Your task to perform on an android device: Open location settings Image 0: 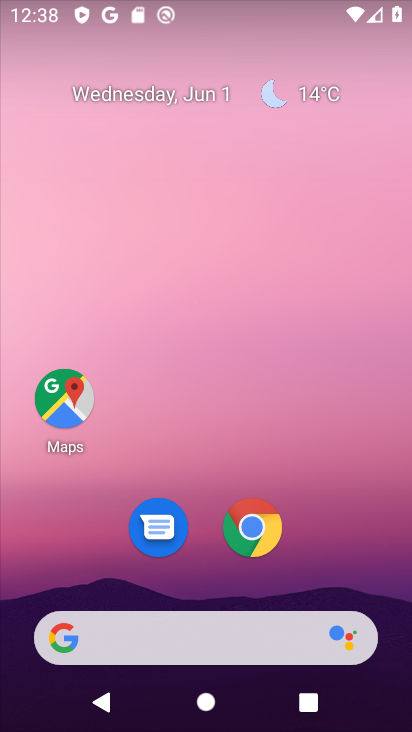
Step 0: drag from (194, 601) to (270, 186)
Your task to perform on an android device: Open location settings Image 1: 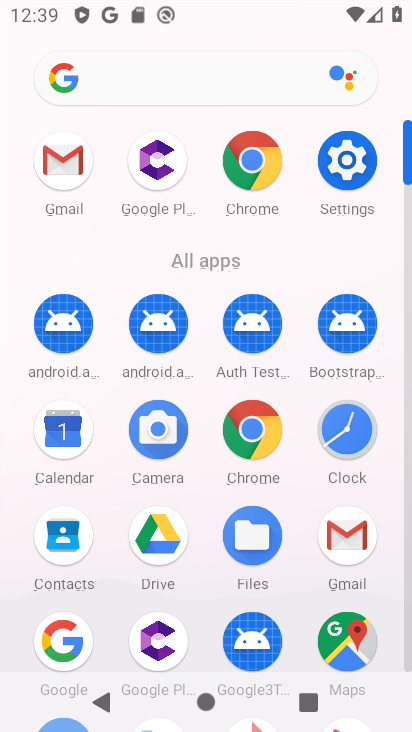
Step 1: click (347, 189)
Your task to perform on an android device: Open location settings Image 2: 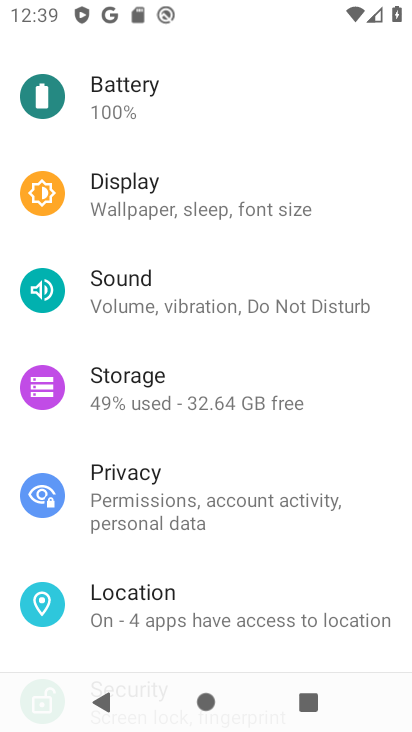
Step 2: click (183, 606)
Your task to perform on an android device: Open location settings Image 3: 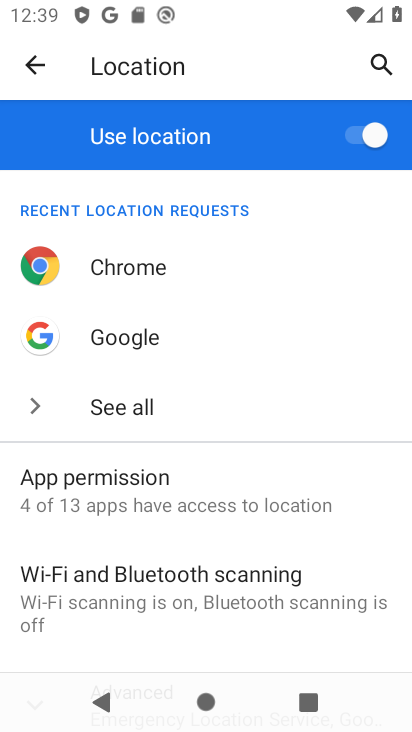
Step 3: task complete